Your task to perform on an android device: Go to network settings Image 0: 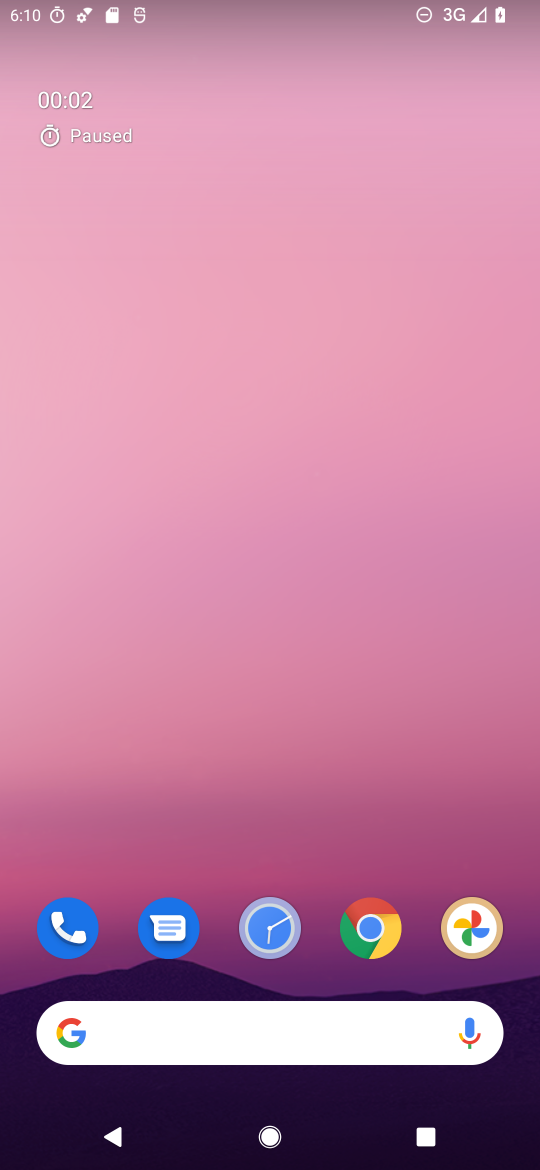
Step 0: drag from (390, 779) to (425, 38)
Your task to perform on an android device: Go to network settings Image 1: 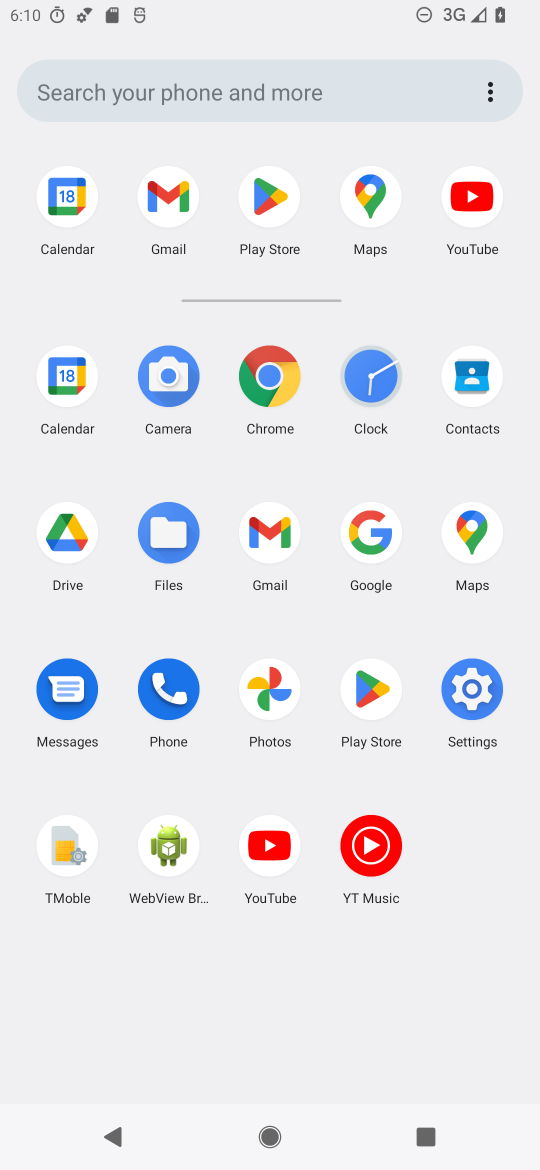
Step 1: click (470, 693)
Your task to perform on an android device: Go to network settings Image 2: 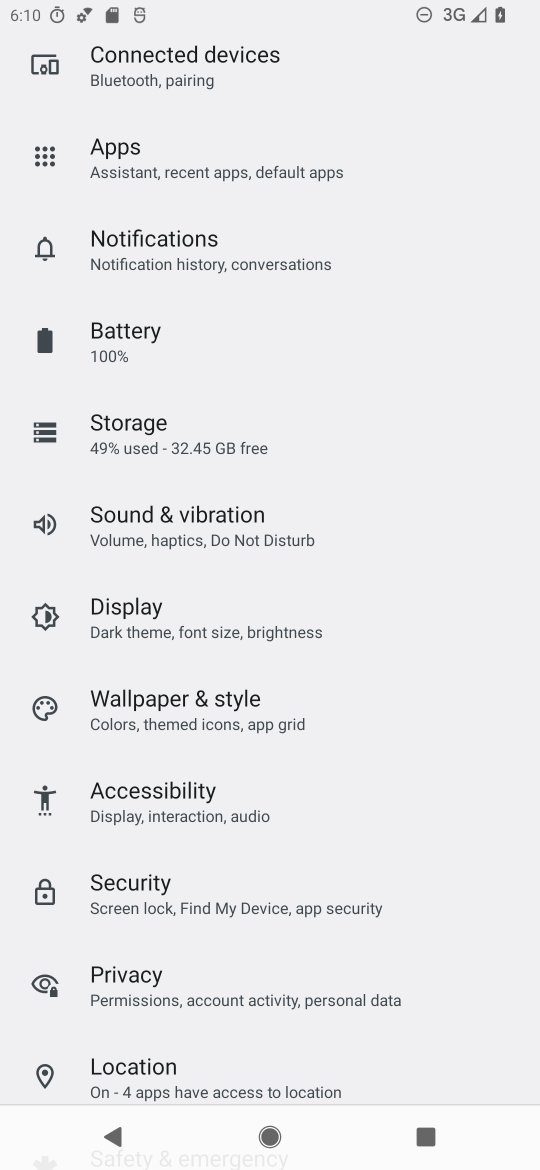
Step 2: drag from (347, 180) to (355, 888)
Your task to perform on an android device: Go to network settings Image 3: 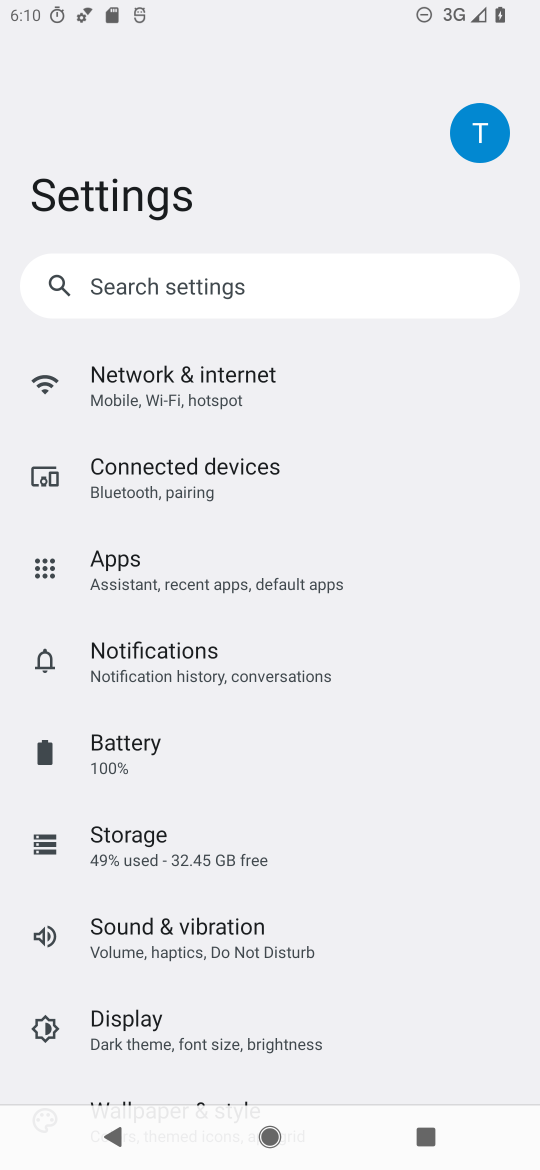
Step 3: click (229, 415)
Your task to perform on an android device: Go to network settings Image 4: 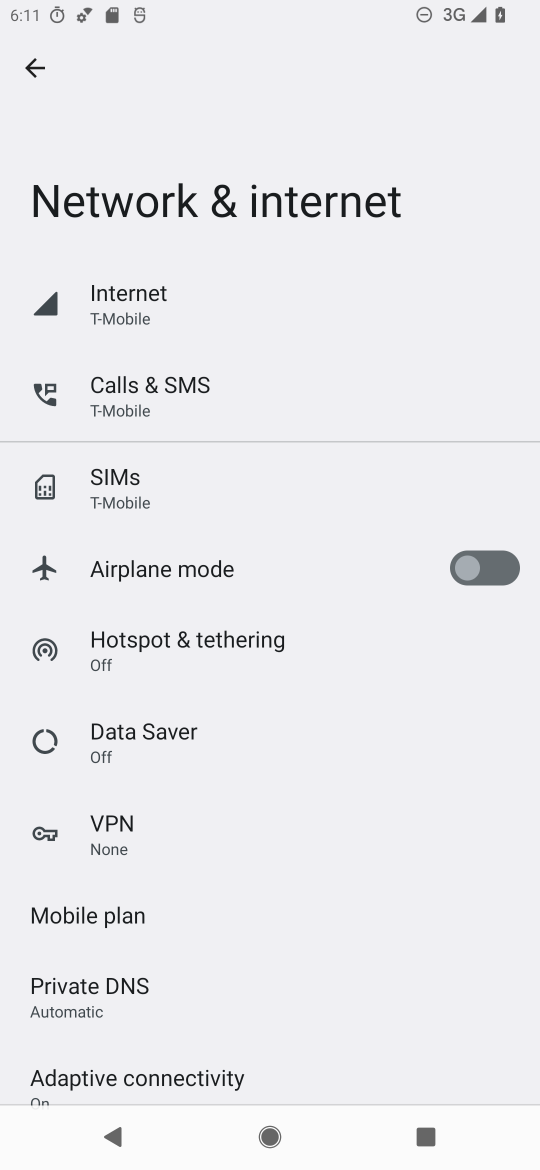
Step 4: task complete